Your task to perform on an android device: Open the calendar app, open the side menu, and click the "Day" option Image 0: 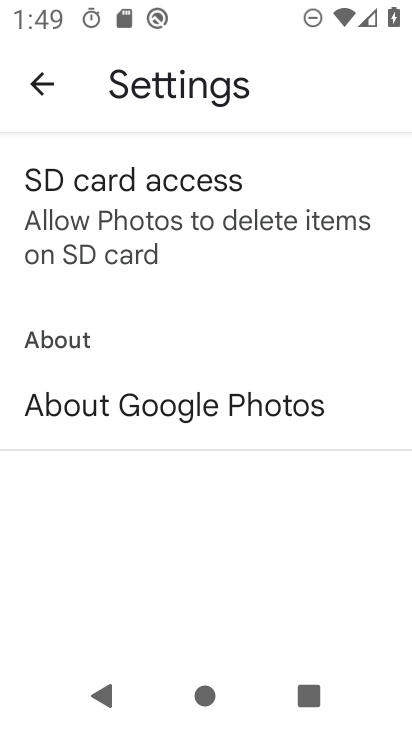
Step 0: press home button
Your task to perform on an android device: Open the calendar app, open the side menu, and click the "Day" option Image 1: 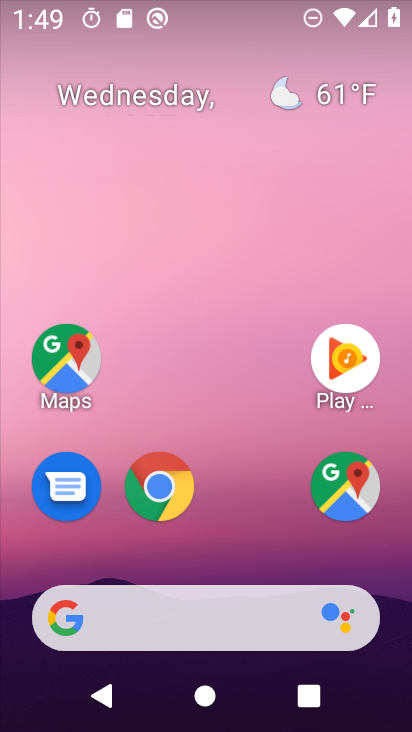
Step 1: drag from (264, 540) to (255, 95)
Your task to perform on an android device: Open the calendar app, open the side menu, and click the "Day" option Image 2: 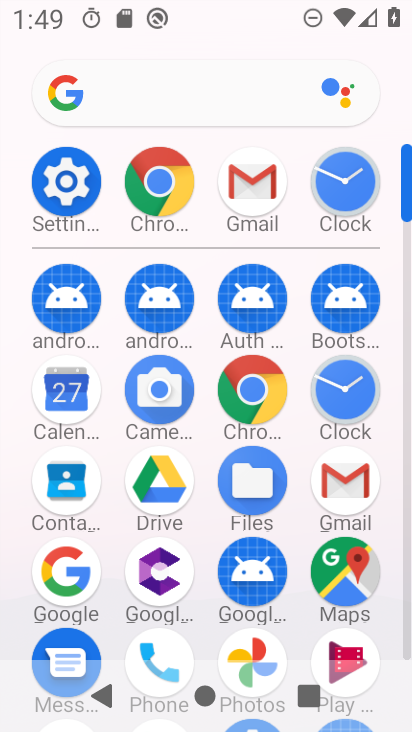
Step 2: click (72, 394)
Your task to perform on an android device: Open the calendar app, open the side menu, and click the "Day" option Image 3: 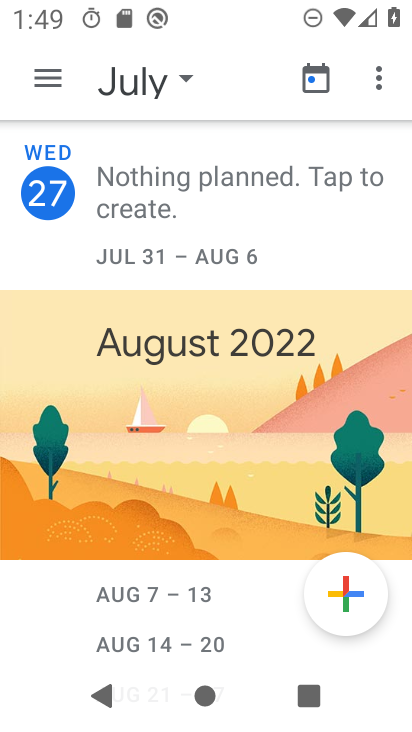
Step 3: click (41, 78)
Your task to perform on an android device: Open the calendar app, open the side menu, and click the "Day" option Image 4: 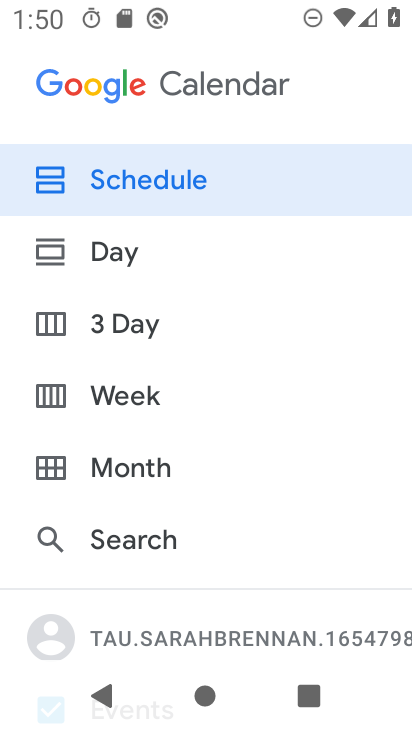
Step 4: drag from (290, 380) to (298, 299)
Your task to perform on an android device: Open the calendar app, open the side menu, and click the "Day" option Image 5: 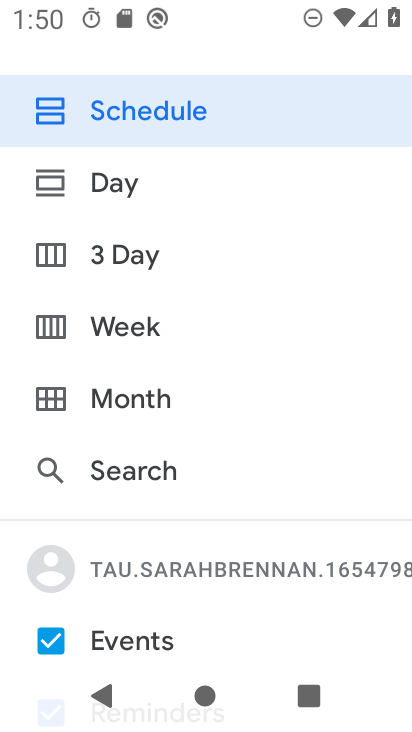
Step 5: drag from (312, 417) to (312, 304)
Your task to perform on an android device: Open the calendar app, open the side menu, and click the "Day" option Image 6: 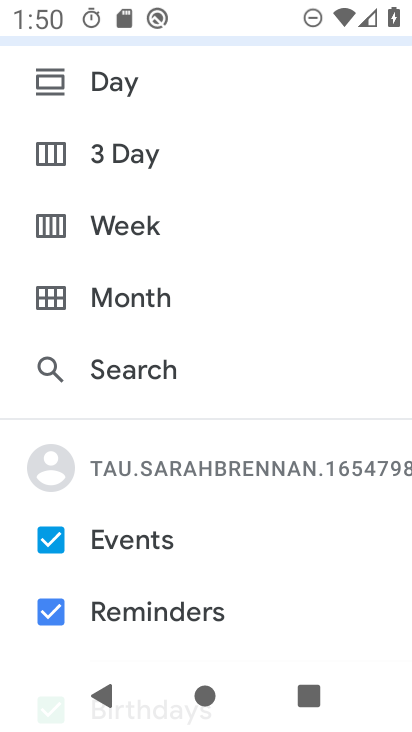
Step 6: drag from (325, 413) to (320, 320)
Your task to perform on an android device: Open the calendar app, open the side menu, and click the "Day" option Image 7: 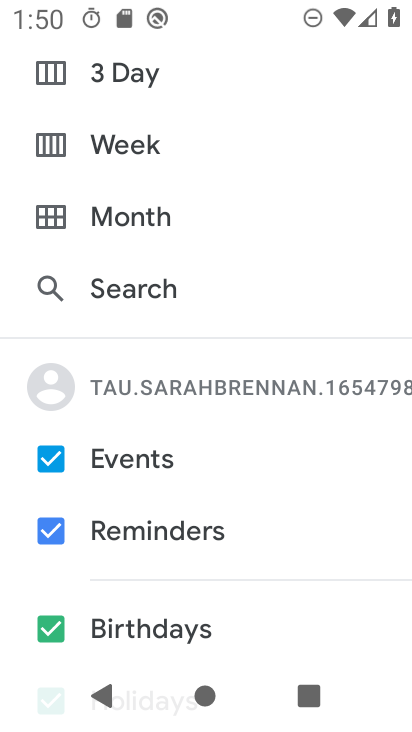
Step 7: drag from (325, 453) to (321, 363)
Your task to perform on an android device: Open the calendar app, open the side menu, and click the "Day" option Image 8: 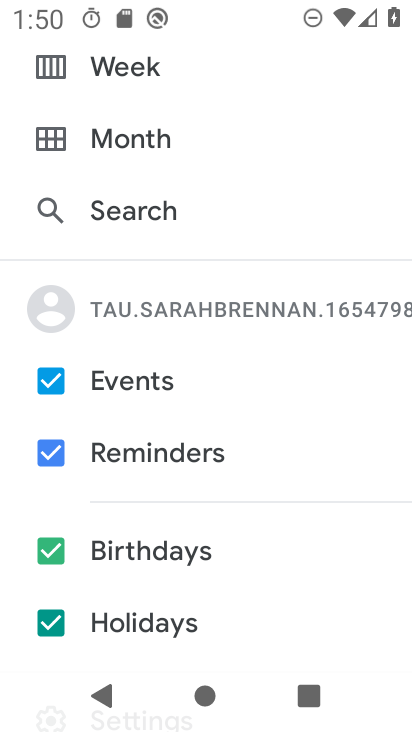
Step 8: drag from (323, 485) to (328, 391)
Your task to perform on an android device: Open the calendar app, open the side menu, and click the "Day" option Image 9: 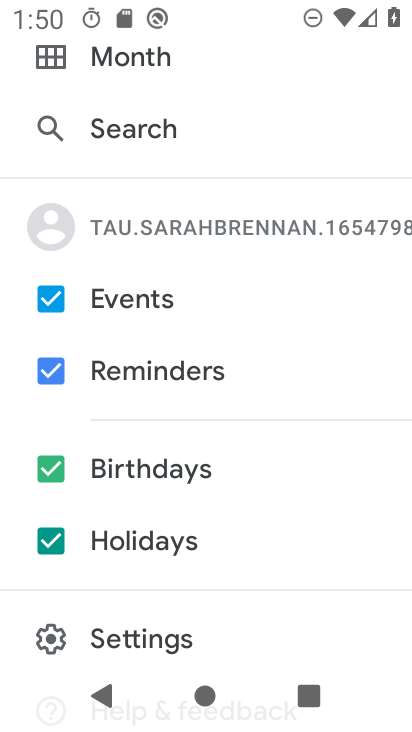
Step 9: drag from (328, 320) to (336, 421)
Your task to perform on an android device: Open the calendar app, open the side menu, and click the "Day" option Image 10: 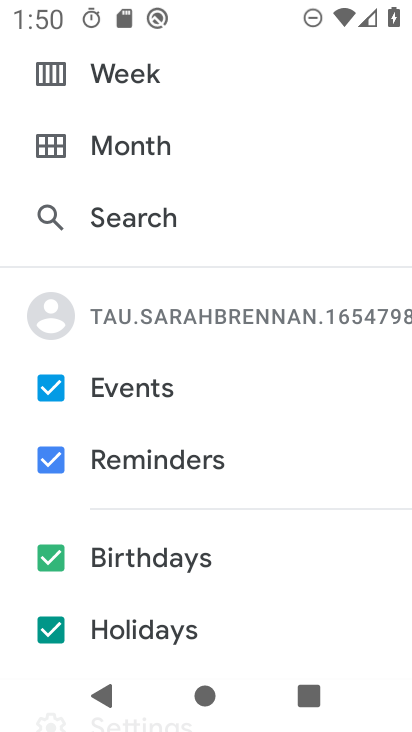
Step 10: drag from (328, 270) to (328, 373)
Your task to perform on an android device: Open the calendar app, open the side menu, and click the "Day" option Image 11: 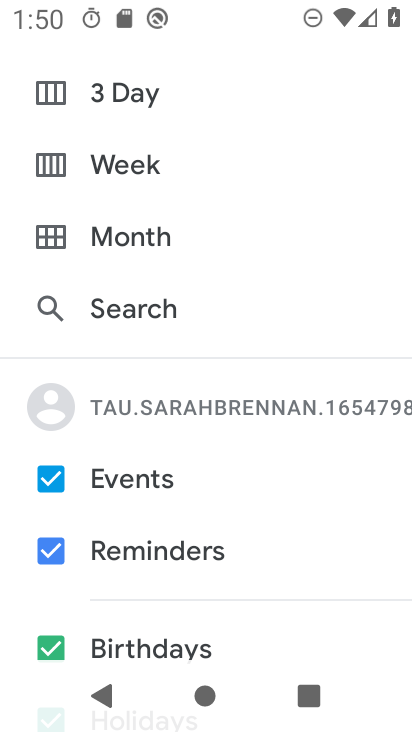
Step 11: drag from (311, 197) to (314, 283)
Your task to perform on an android device: Open the calendar app, open the side menu, and click the "Day" option Image 12: 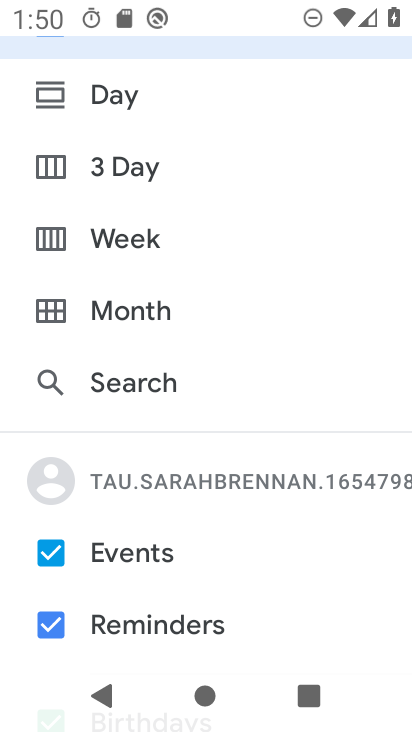
Step 12: drag from (322, 204) to (325, 294)
Your task to perform on an android device: Open the calendar app, open the side menu, and click the "Day" option Image 13: 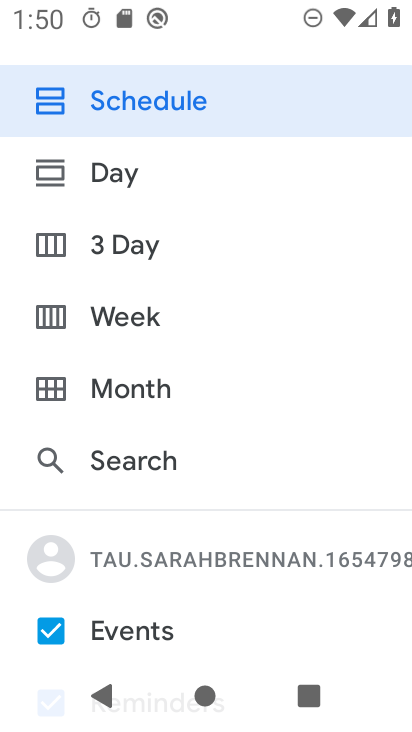
Step 13: drag from (319, 219) to (329, 322)
Your task to perform on an android device: Open the calendar app, open the side menu, and click the "Day" option Image 14: 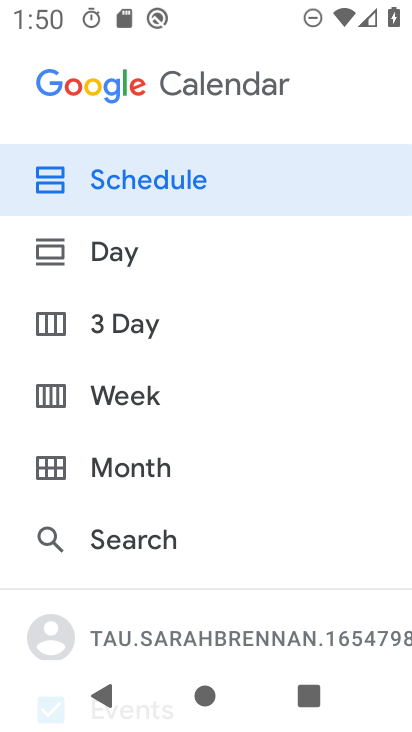
Step 14: drag from (331, 255) to (337, 398)
Your task to perform on an android device: Open the calendar app, open the side menu, and click the "Day" option Image 15: 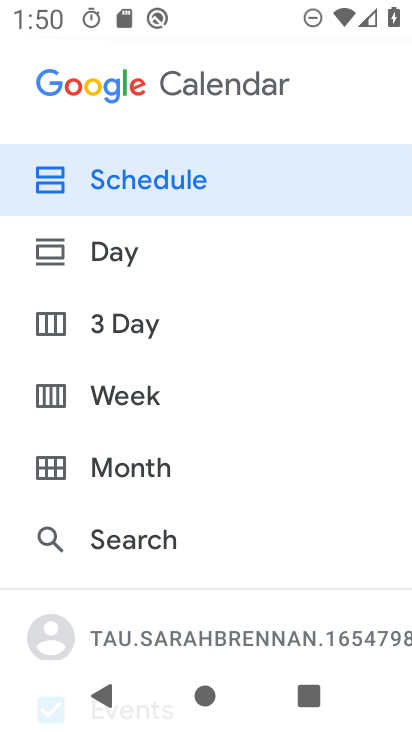
Step 15: click (127, 255)
Your task to perform on an android device: Open the calendar app, open the side menu, and click the "Day" option Image 16: 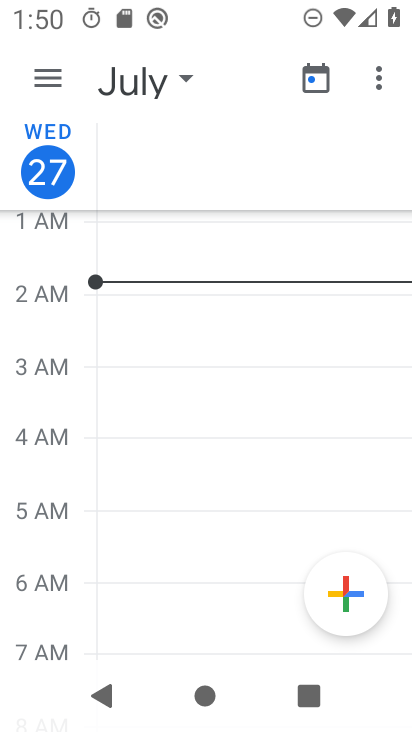
Step 16: task complete